Your task to perform on an android device: stop showing notifications on the lock screen Image 0: 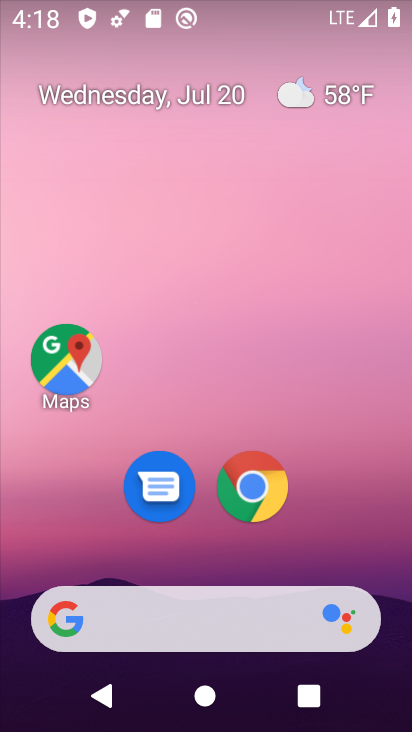
Step 0: drag from (177, 564) to (205, 26)
Your task to perform on an android device: stop showing notifications on the lock screen Image 1: 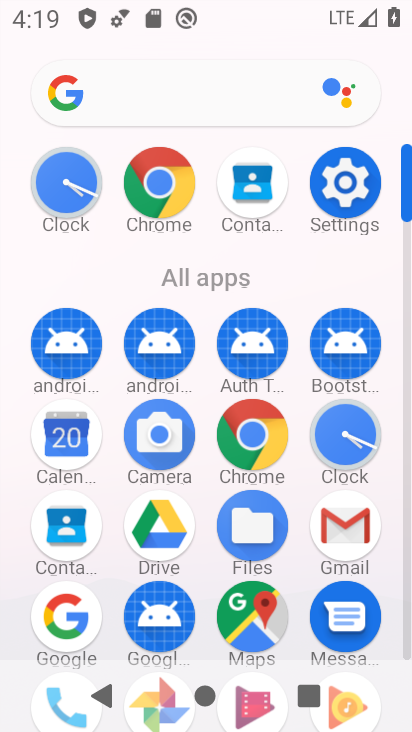
Step 1: click (360, 188)
Your task to perform on an android device: stop showing notifications on the lock screen Image 2: 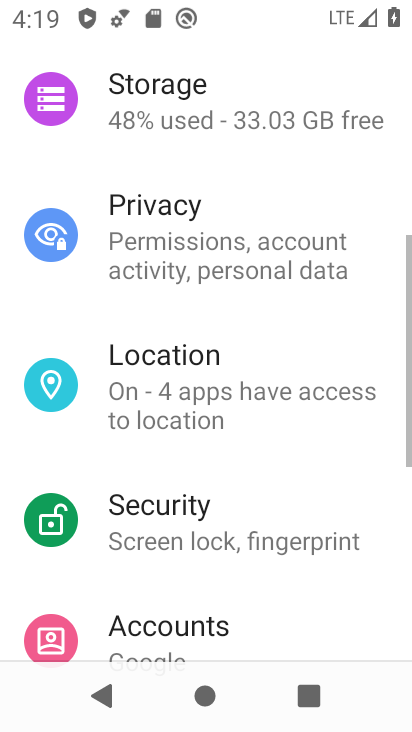
Step 2: drag from (288, 152) to (210, 729)
Your task to perform on an android device: stop showing notifications on the lock screen Image 3: 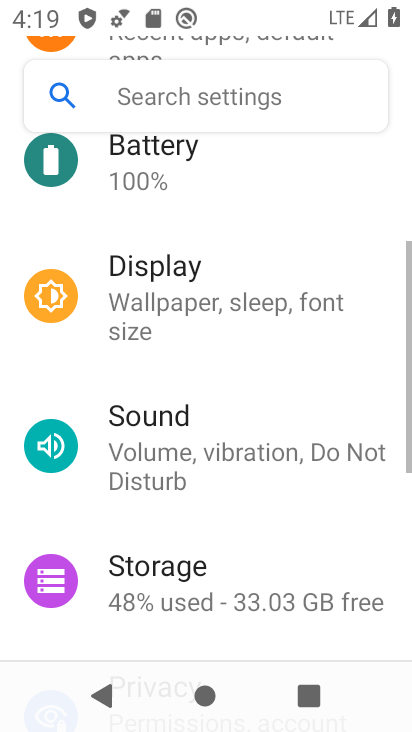
Step 3: drag from (200, 282) to (190, 731)
Your task to perform on an android device: stop showing notifications on the lock screen Image 4: 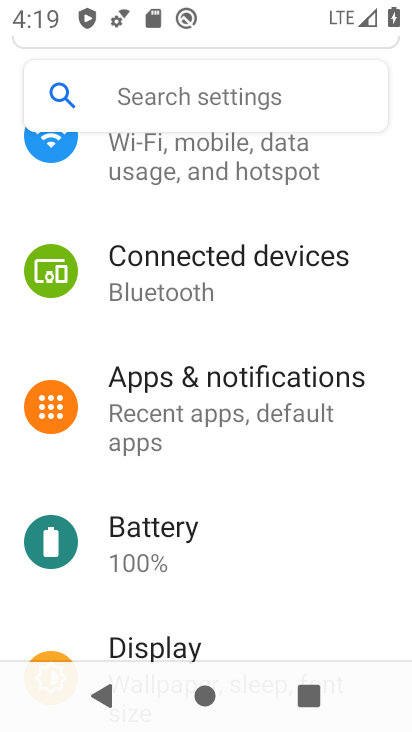
Step 4: click (212, 394)
Your task to perform on an android device: stop showing notifications on the lock screen Image 5: 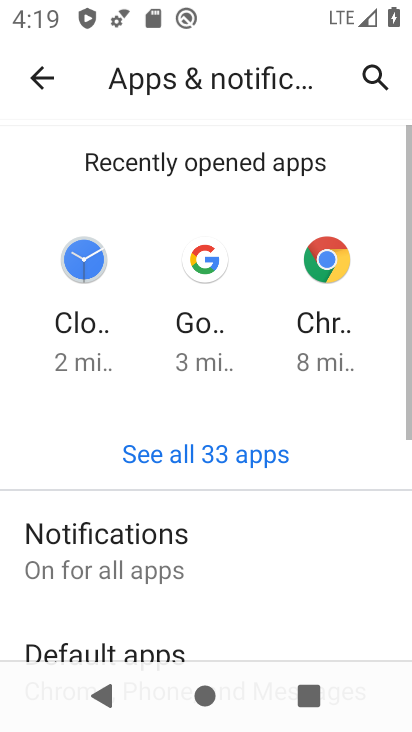
Step 5: click (145, 548)
Your task to perform on an android device: stop showing notifications on the lock screen Image 6: 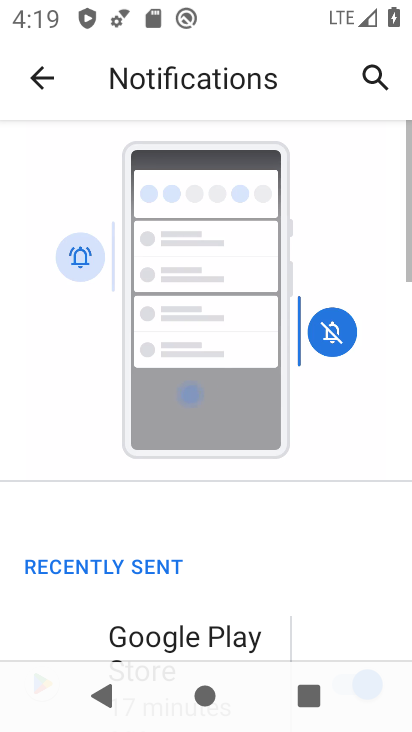
Step 6: drag from (145, 558) to (251, 8)
Your task to perform on an android device: stop showing notifications on the lock screen Image 7: 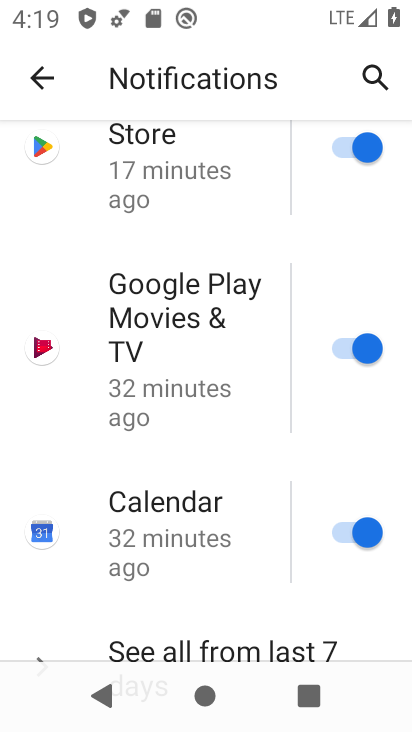
Step 7: drag from (169, 582) to (226, 18)
Your task to perform on an android device: stop showing notifications on the lock screen Image 8: 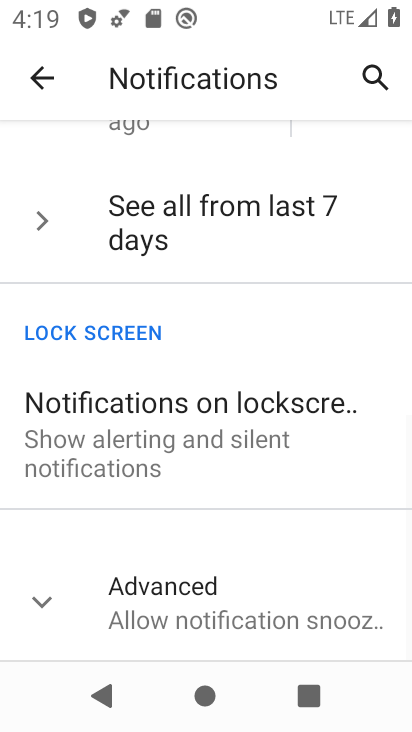
Step 8: click (159, 448)
Your task to perform on an android device: stop showing notifications on the lock screen Image 9: 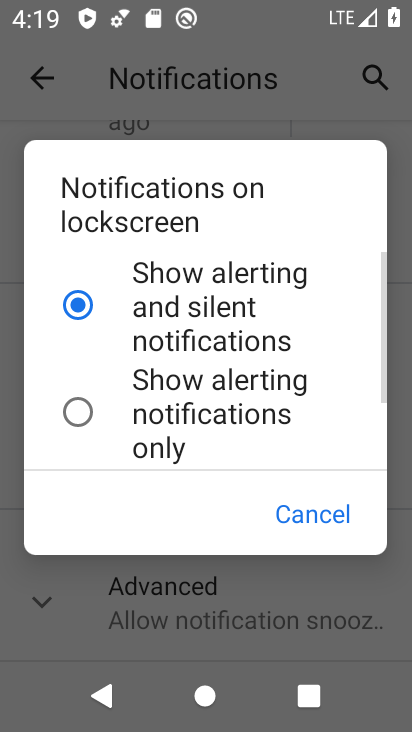
Step 9: drag from (149, 420) to (211, 18)
Your task to perform on an android device: stop showing notifications on the lock screen Image 10: 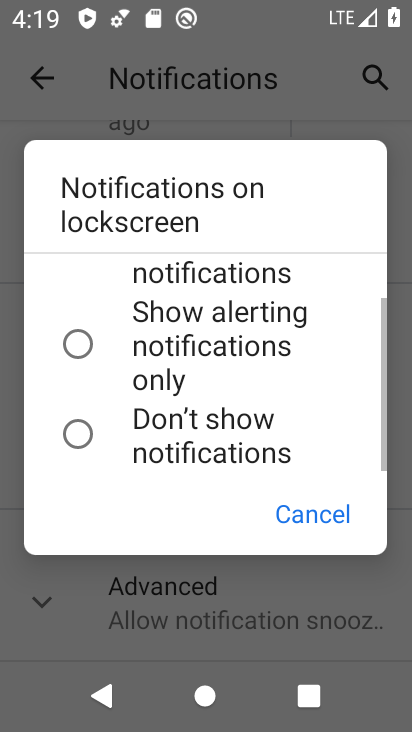
Step 10: click (81, 428)
Your task to perform on an android device: stop showing notifications on the lock screen Image 11: 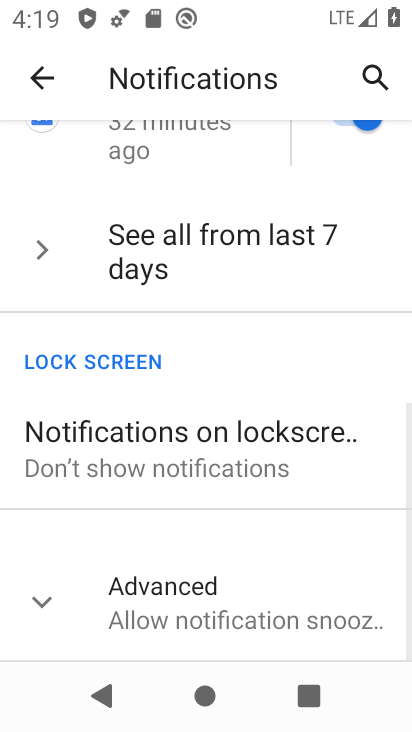
Step 11: task complete